Your task to perform on an android device: Go to Maps Image 0: 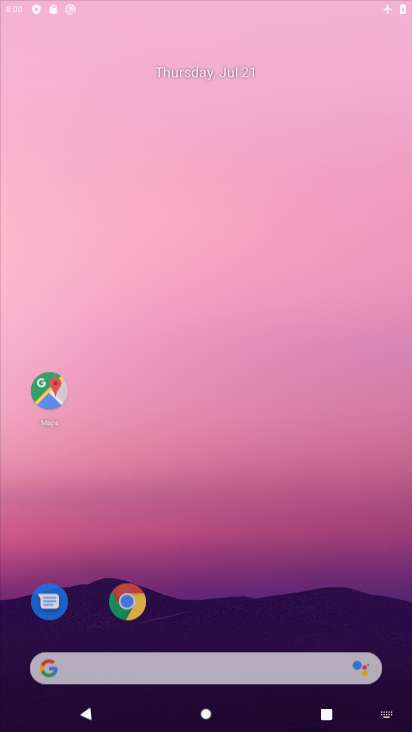
Step 0: press home button
Your task to perform on an android device: Go to Maps Image 1: 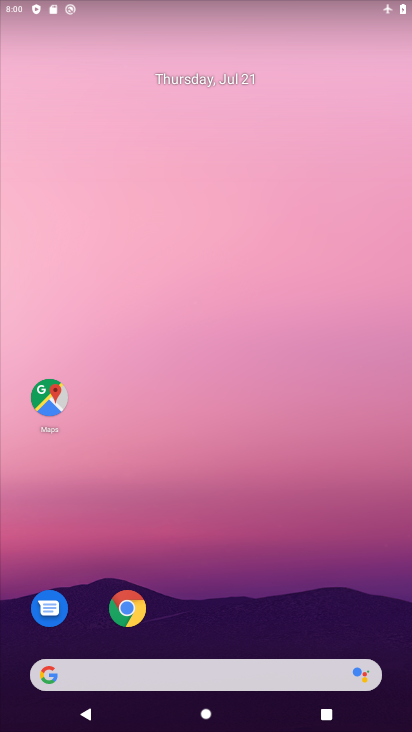
Step 1: click (48, 393)
Your task to perform on an android device: Go to Maps Image 2: 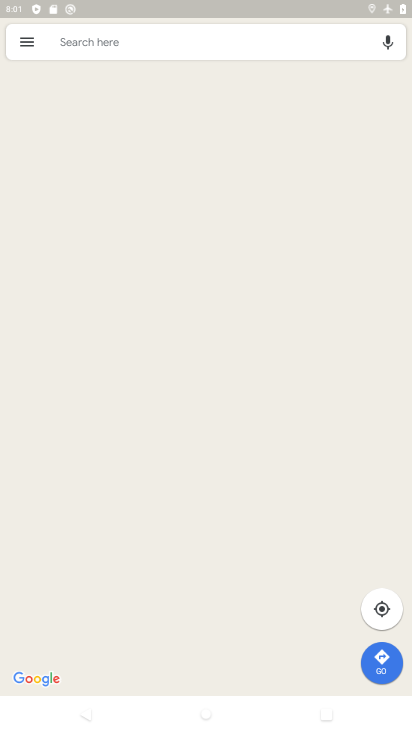
Step 2: task complete